Your task to perform on an android device: How much does a 2x4x8 board cost at Lowes? Image 0: 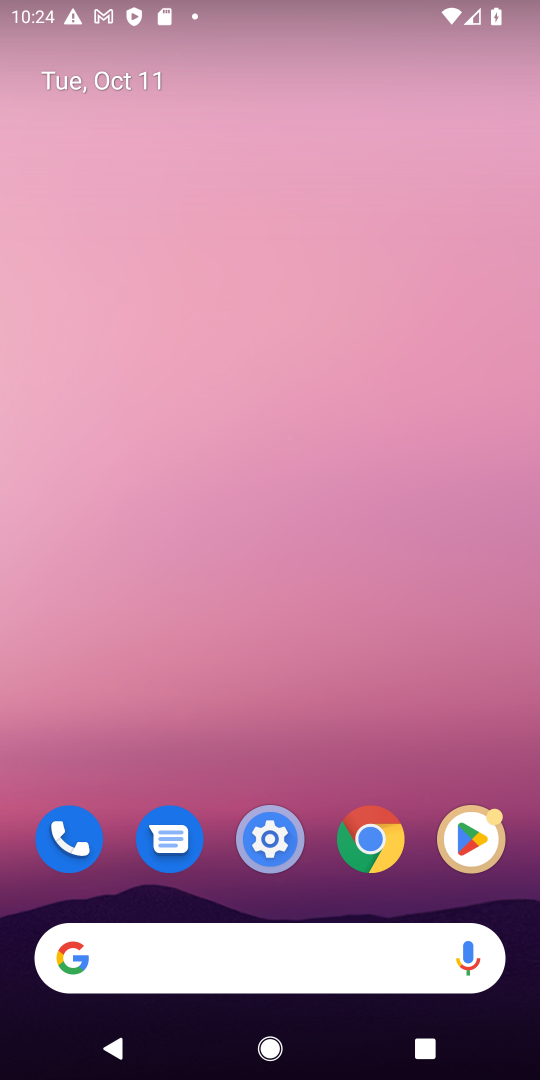
Step 0: drag from (280, 871) to (342, 4)
Your task to perform on an android device: How much does a 2x4x8 board cost at Lowes? Image 1: 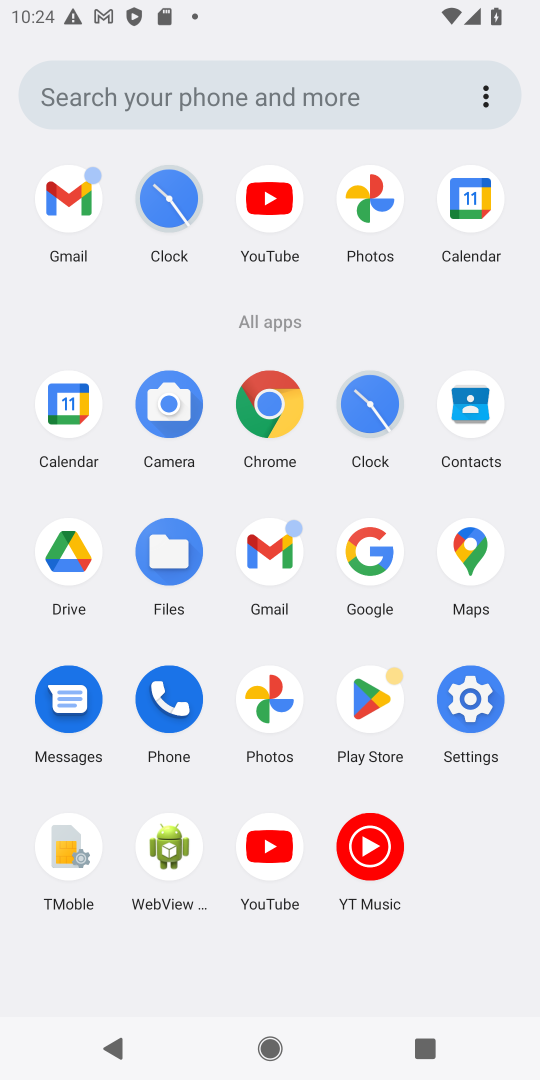
Step 1: click (360, 578)
Your task to perform on an android device: How much does a 2x4x8 board cost at Lowes? Image 2: 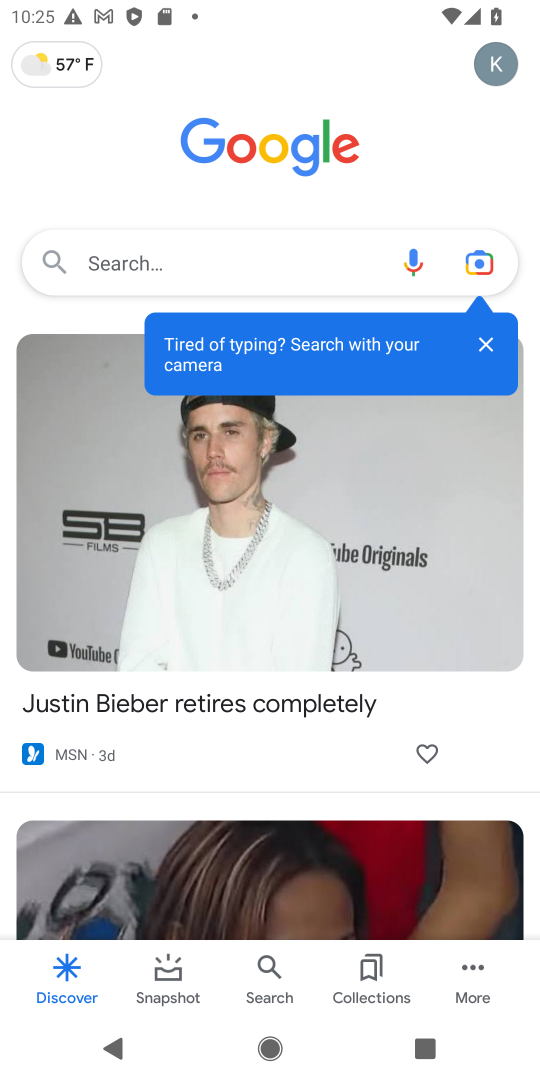
Step 2: click (202, 278)
Your task to perform on an android device: How much does a 2x4x8 board cost at Lowes? Image 3: 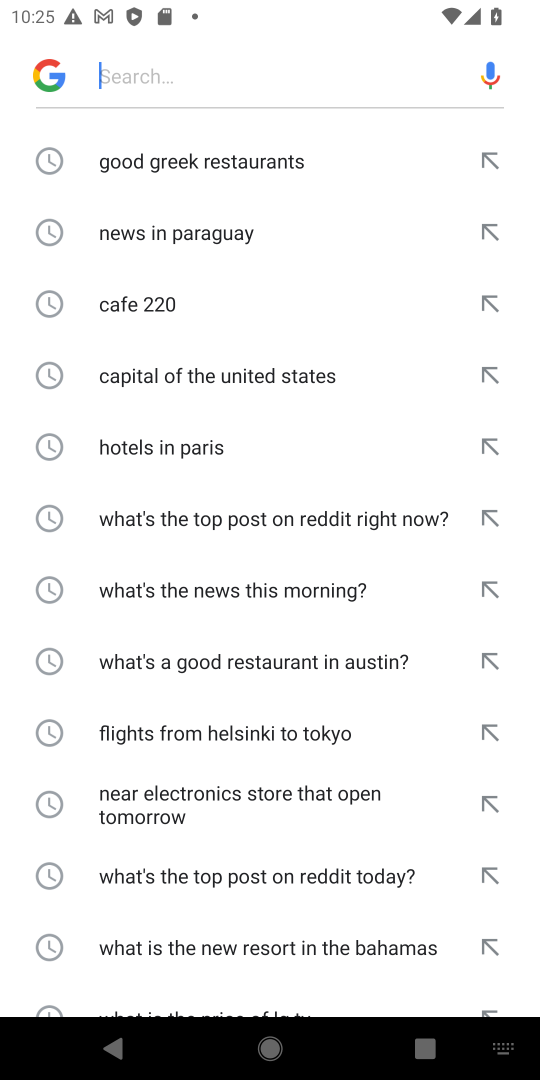
Step 3: type "How much does a 2x4x8 board cost at Lowes?"
Your task to perform on an android device: How much does a 2x4x8 board cost at Lowes? Image 4: 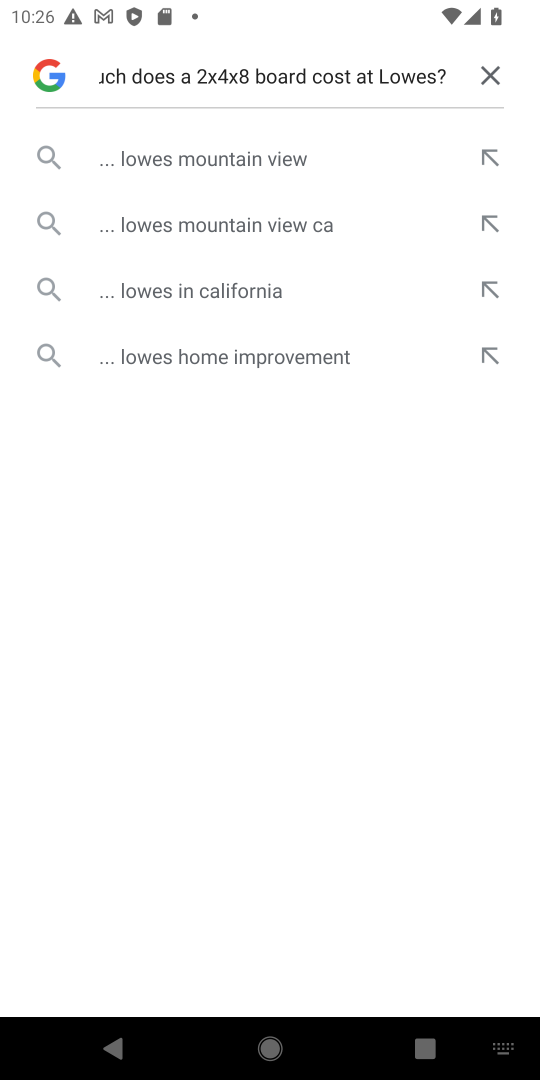
Step 4: click (350, 172)
Your task to perform on an android device: How much does a 2x4x8 board cost at Lowes? Image 5: 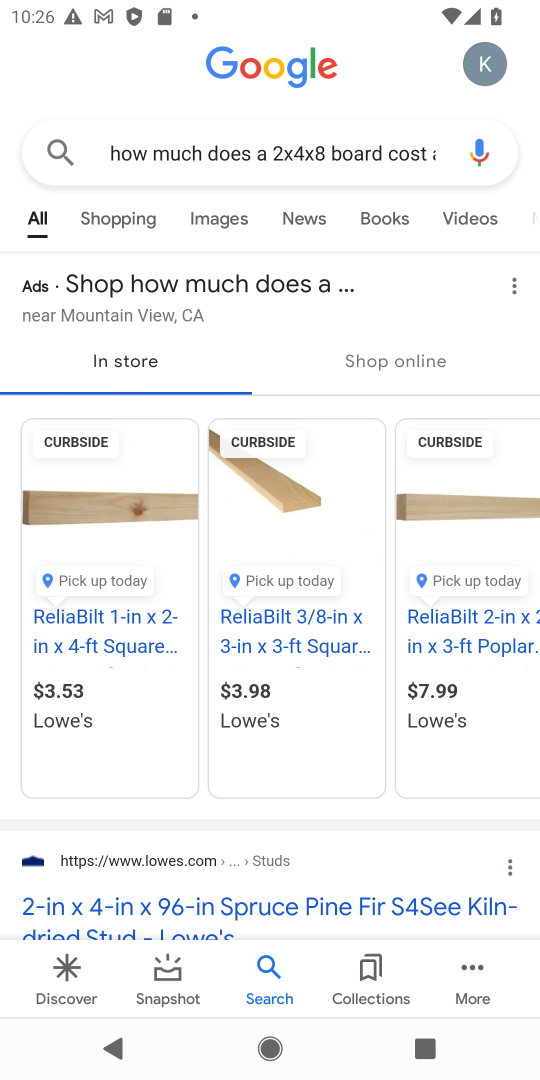
Step 5: task complete